Your task to perform on an android device: Open internet settings Image 0: 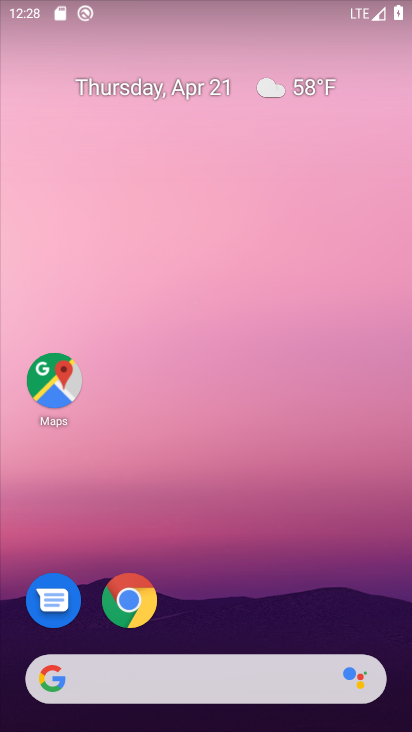
Step 0: drag from (248, 574) to (330, 58)
Your task to perform on an android device: Open internet settings Image 1: 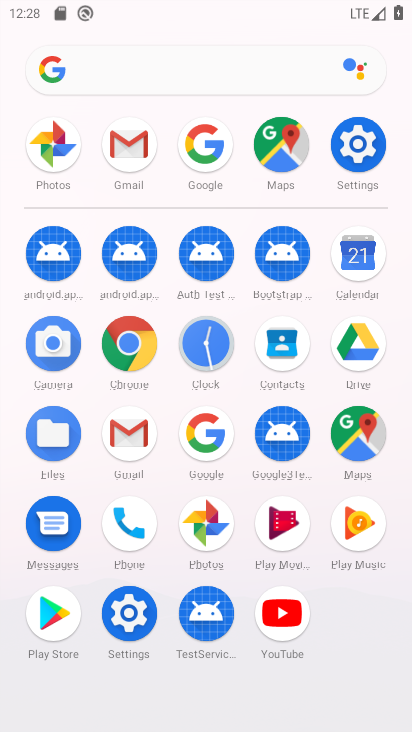
Step 1: click (367, 151)
Your task to perform on an android device: Open internet settings Image 2: 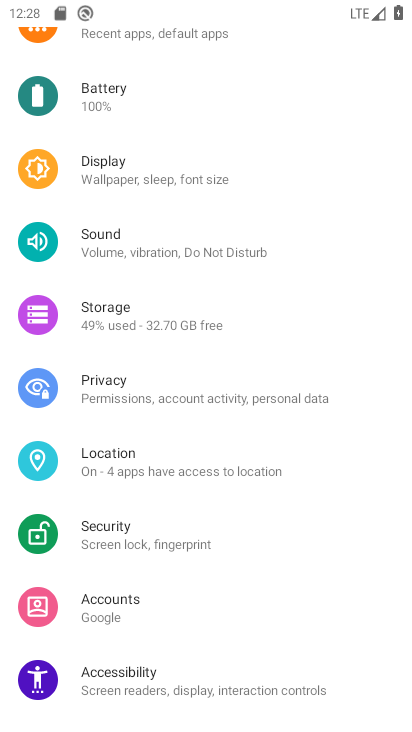
Step 2: drag from (271, 211) to (261, 543)
Your task to perform on an android device: Open internet settings Image 3: 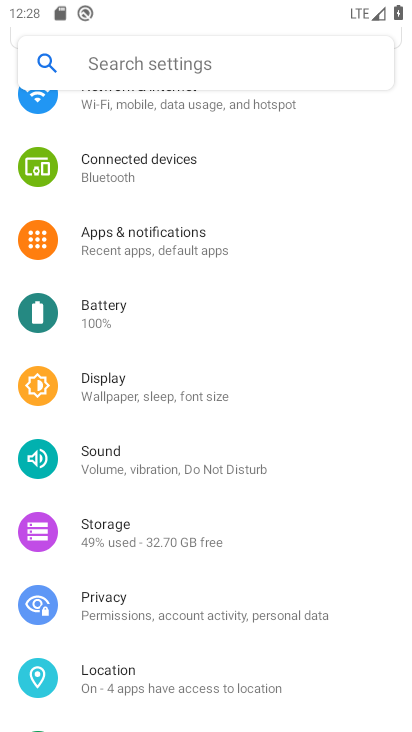
Step 3: drag from (253, 270) to (266, 480)
Your task to perform on an android device: Open internet settings Image 4: 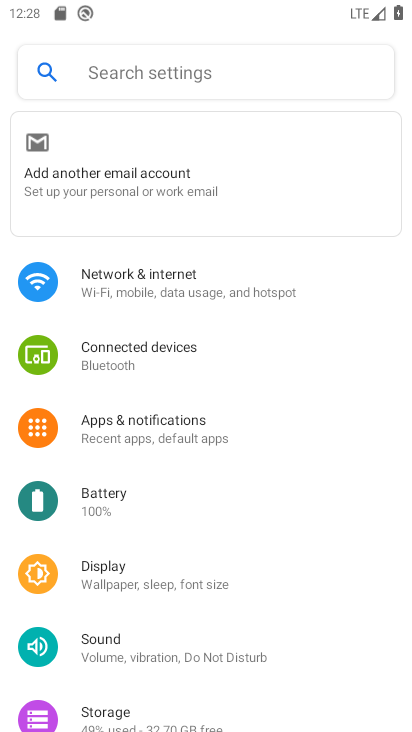
Step 4: click (254, 287)
Your task to perform on an android device: Open internet settings Image 5: 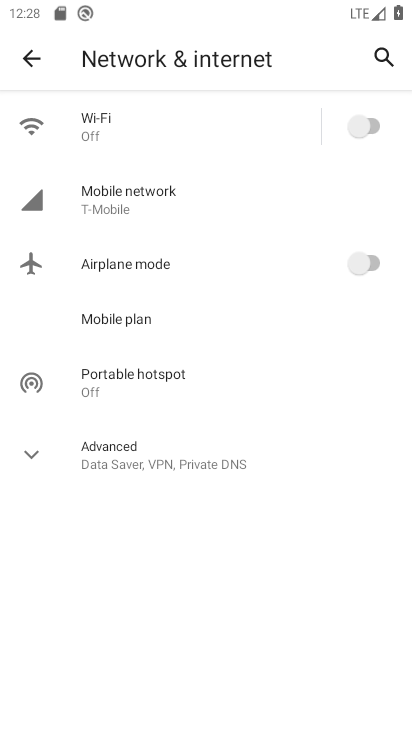
Step 5: task complete